Your task to perform on an android device: Open the web browser Image 0: 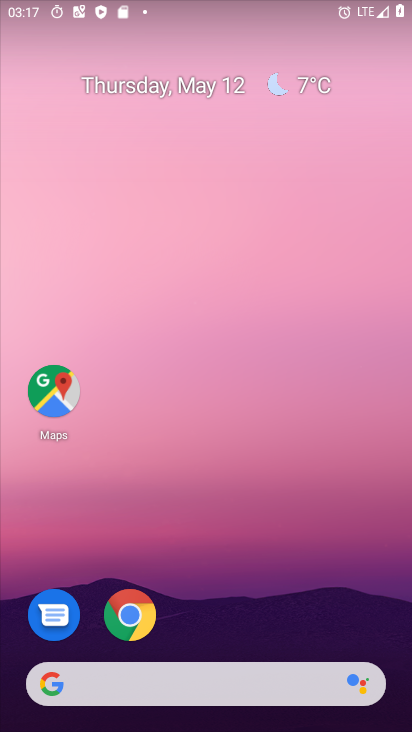
Step 0: click (119, 624)
Your task to perform on an android device: Open the web browser Image 1: 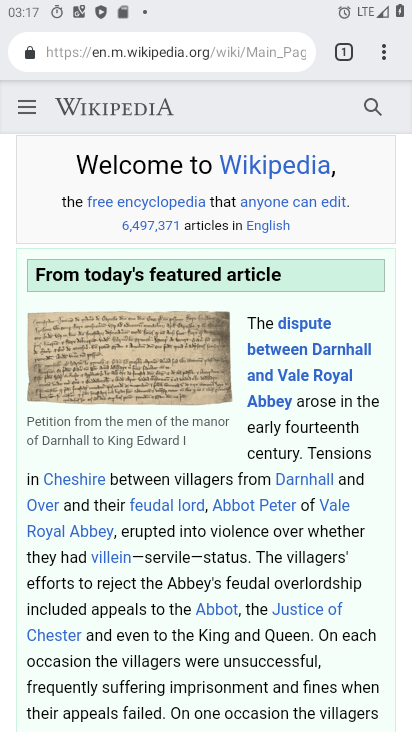
Step 1: task complete